Your task to perform on an android device: remove spam from my inbox in the gmail app Image 0: 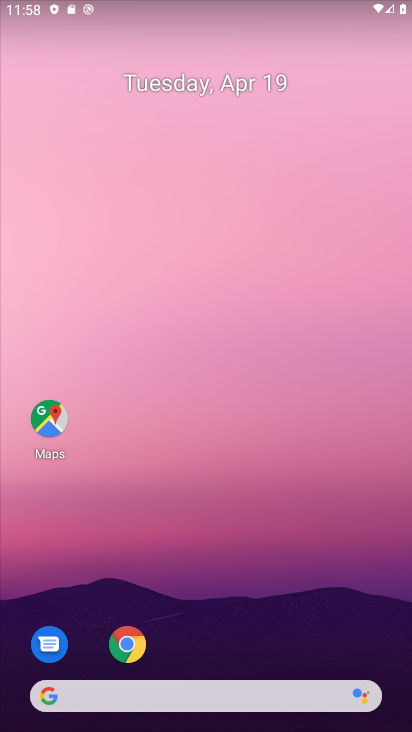
Step 0: drag from (306, 148) to (312, 95)
Your task to perform on an android device: remove spam from my inbox in the gmail app Image 1: 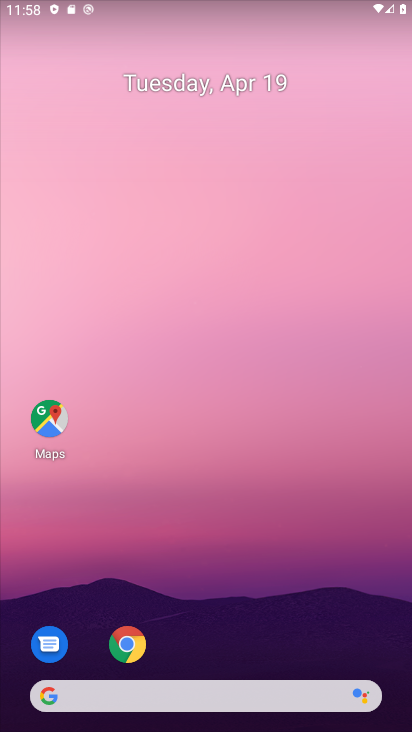
Step 1: drag from (238, 648) to (331, 0)
Your task to perform on an android device: remove spam from my inbox in the gmail app Image 2: 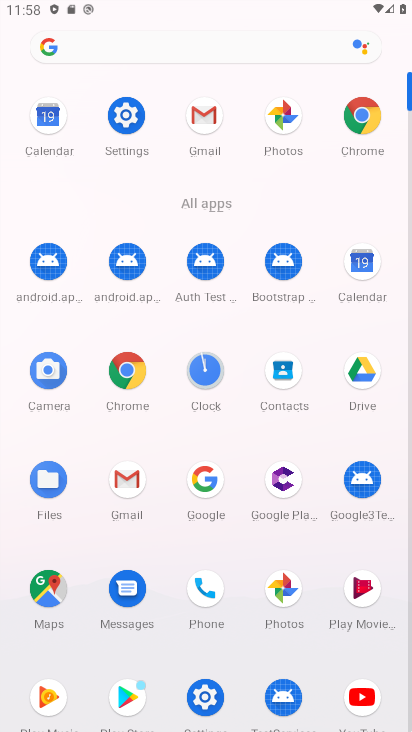
Step 2: click (203, 104)
Your task to perform on an android device: remove spam from my inbox in the gmail app Image 3: 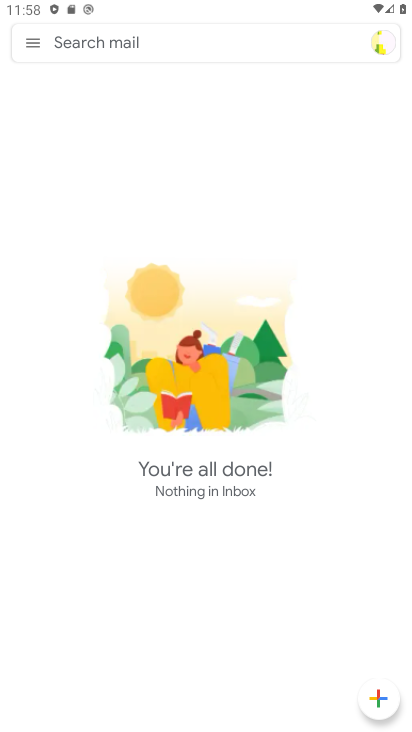
Step 3: click (35, 38)
Your task to perform on an android device: remove spam from my inbox in the gmail app Image 4: 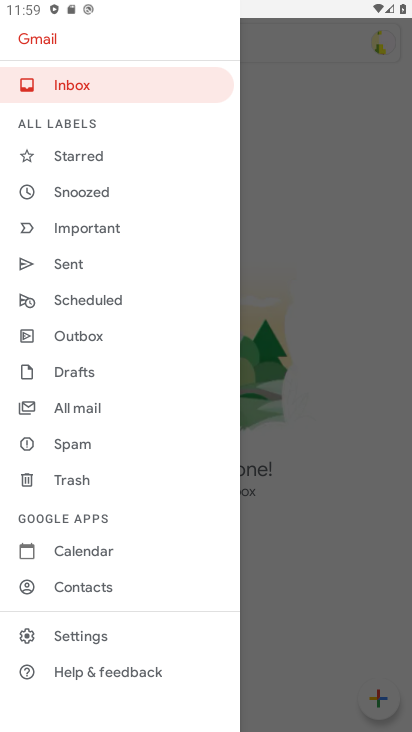
Step 4: click (86, 437)
Your task to perform on an android device: remove spam from my inbox in the gmail app Image 5: 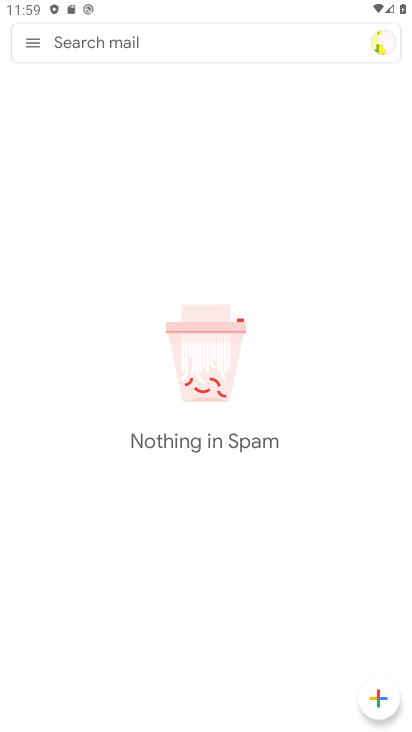
Step 5: task complete